Your task to perform on an android device: Go to ESPN.com Image 0: 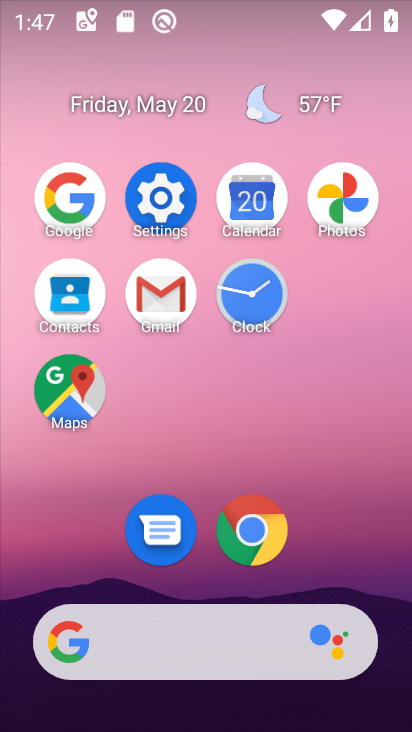
Step 0: click (244, 545)
Your task to perform on an android device: Go to ESPN.com Image 1: 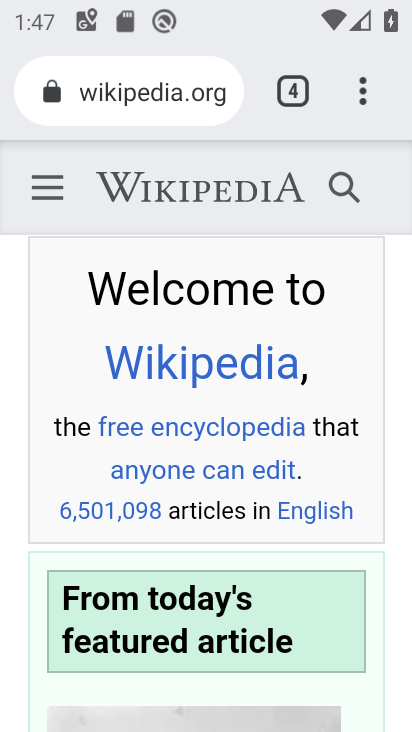
Step 1: click (275, 95)
Your task to perform on an android device: Go to ESPN.com Image 2: 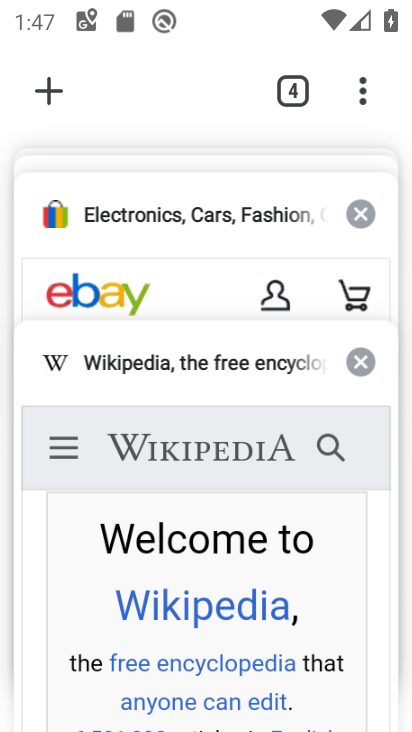
Step 2: click (70, 104)
Your task to perform on an android device: Go to ESPN.com Image 3: 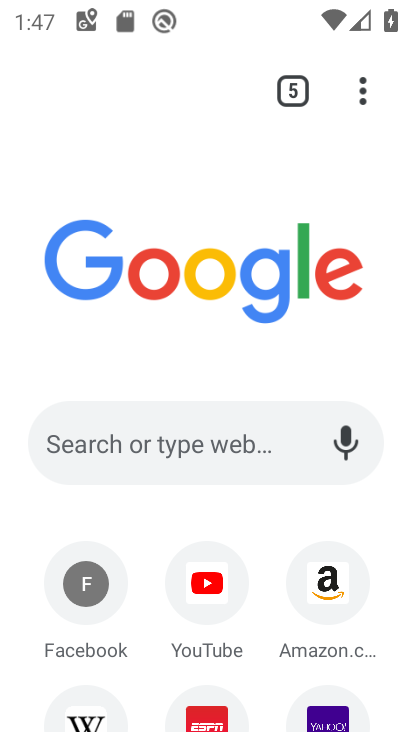
Step 3: click (219, 711)
Your task to perform on an android device: Go to ESPN.com Image 4: 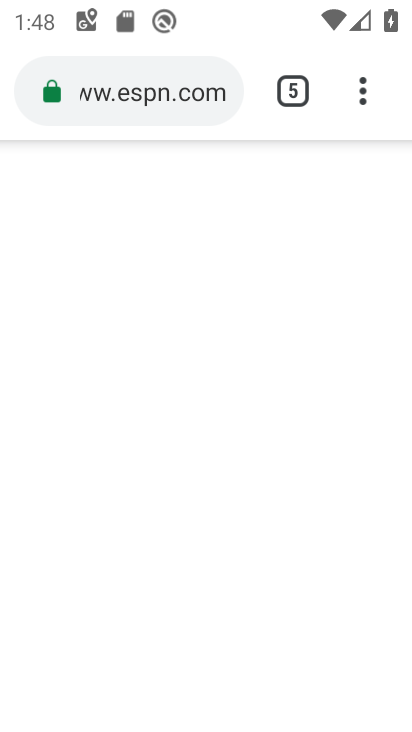
Step 4: task complete